Your task to perform on an android device: Open Chrome and go to the settings page Image 0: 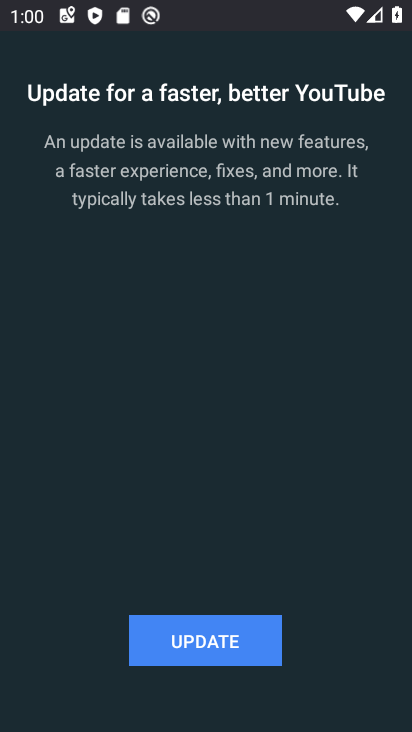
Step 0: press home button
Your task to perform on an android device: Open Chrome and go to the settings page Image 1: 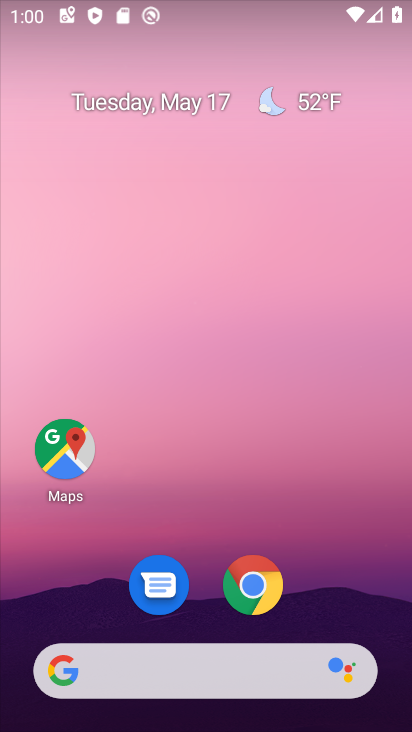
Step 1: click (265, 575)
Your task to perform on an android device: Open Chrome and go to the settings page Image 2: 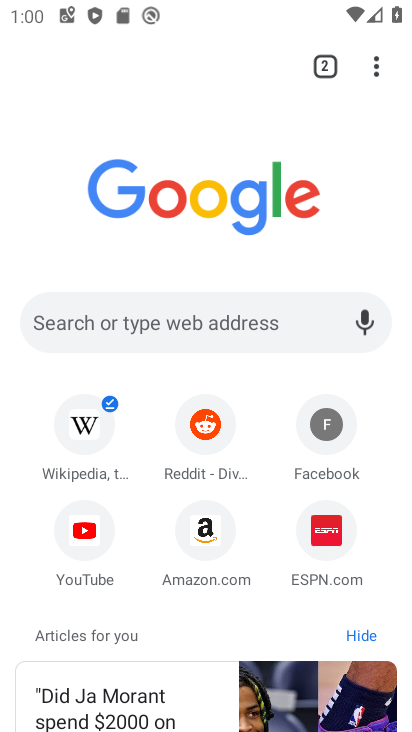
Step 2: click (372, 66)
Your task to perform on an android device: Open Chrome and go to the settings page Image 3: 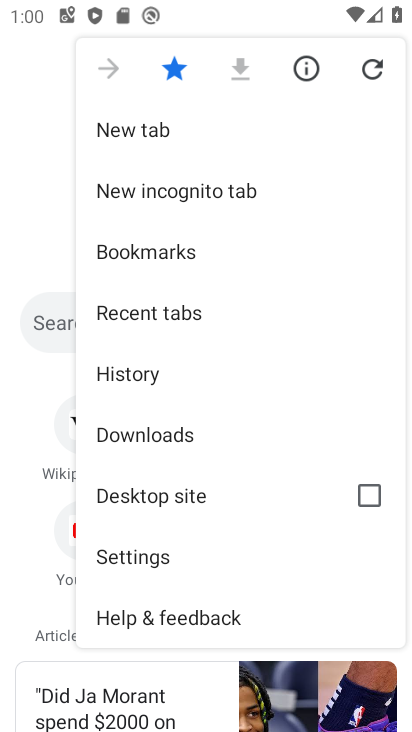
Step 3: click (178, 547)
Your task to perform on an android device: Open Chrome and go to the settings page Image 4: 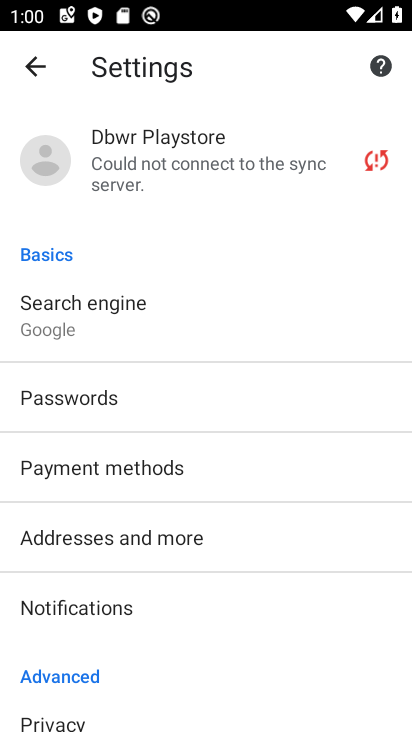
Step 4: task complete